Your task to perform on an android device: Show me popular games on the Play Store Image 0: 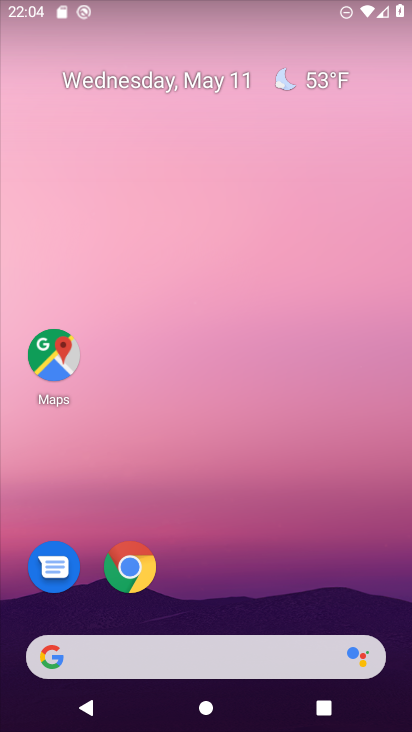
Step 0: drag from (264, 706) to (310, 1)
Your task to perform on an android device: Show me popular games on the Play Store Image 1: 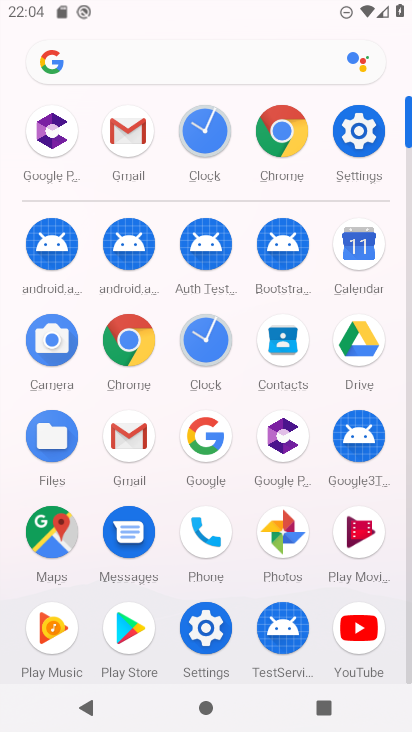
Step 1: click (122, 624)
Your task to perform on an android device: Show me popular games on the Play Store Image 2: 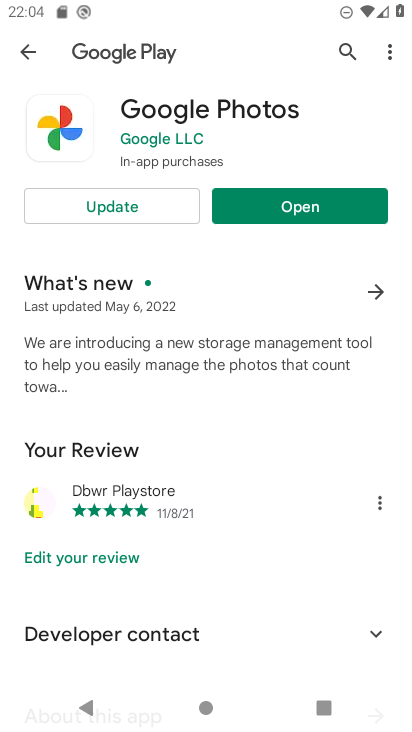
Step 2: click (163, 204)
Your task to perform on an android device: Show me popular games on the Play Store Image 3: 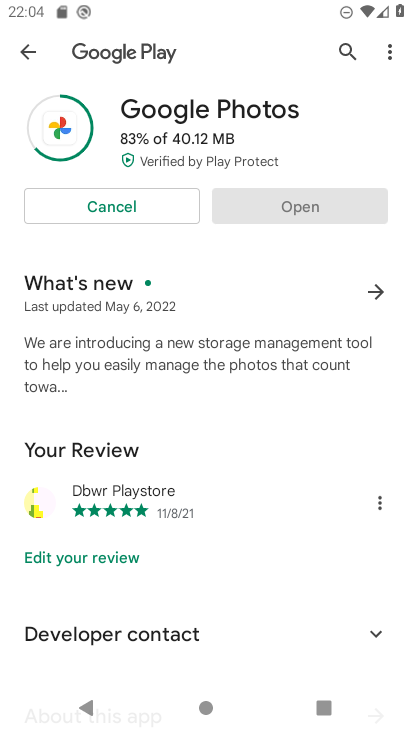
Step 3: click (20, 52)
Your task to perform on an android device: Show me popular games on the Play Store Image 4: 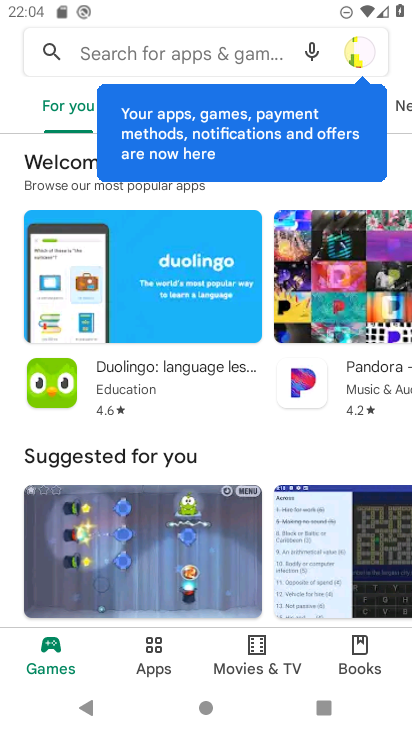
Step 4: task complete